Your task to perform on an android device: What's the weather today? Image 0: 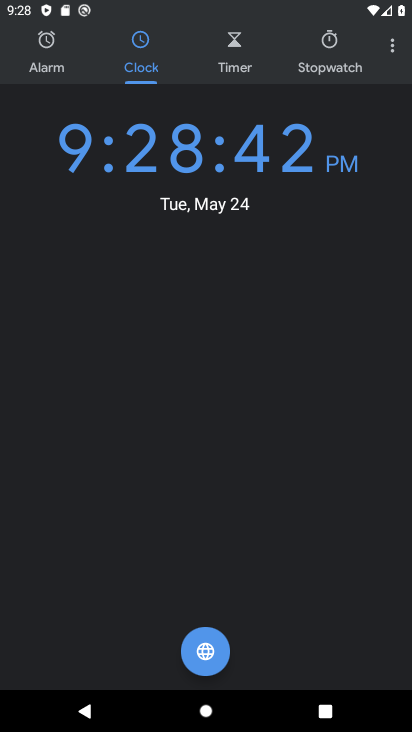
Step 0: press home button
Your task to perform on an android device: What's the weather today? Image 1: 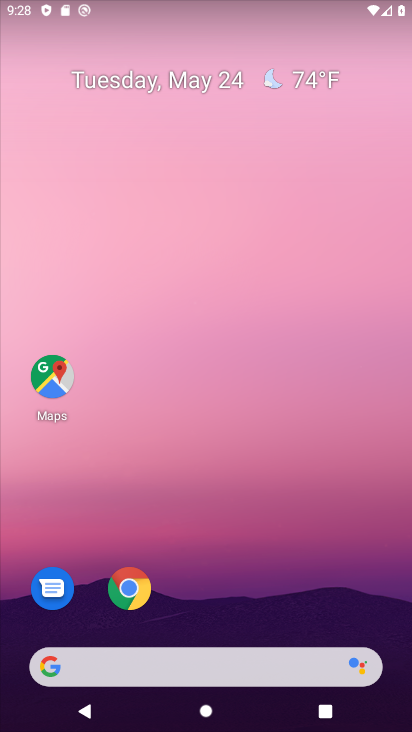
Step 1: click (202, 680)
Your task to perform on an android device: What's the weather today? Image 2: 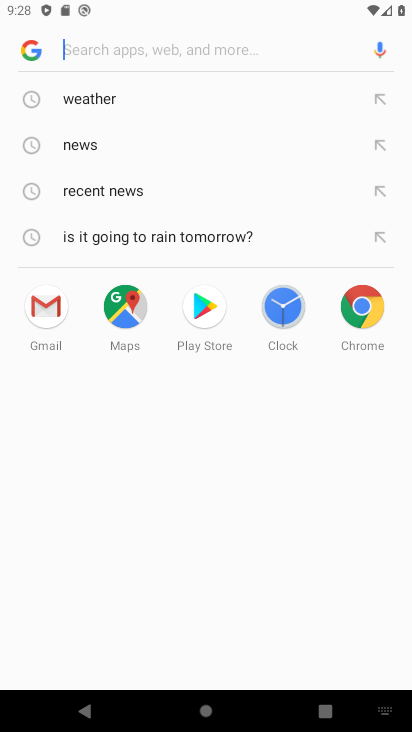
Step 2: click (169, 87)
Your task to perform on an android device: What's the weather today? Image 3: 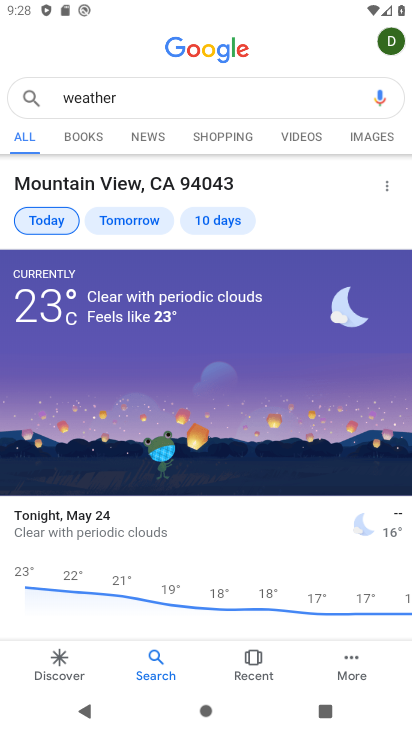
Step 3: task complete